Your task to perform on an android device: change the clock style Image 0: 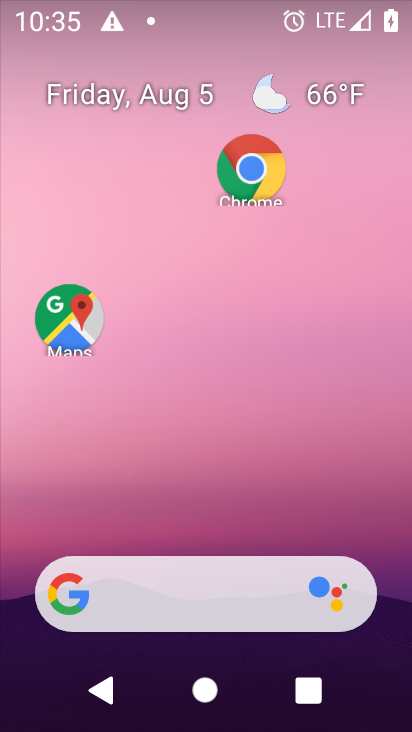
Step 0: drag from (175, 530) to (178, 212)
Your task to perform on an android device: change the clock style Image 1: 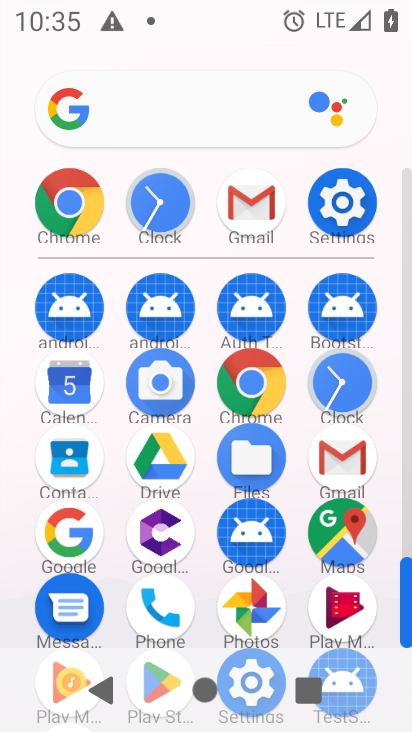
Step 1: click (155, 200)
Your task to perform on an android device: change the clock style Image 2: 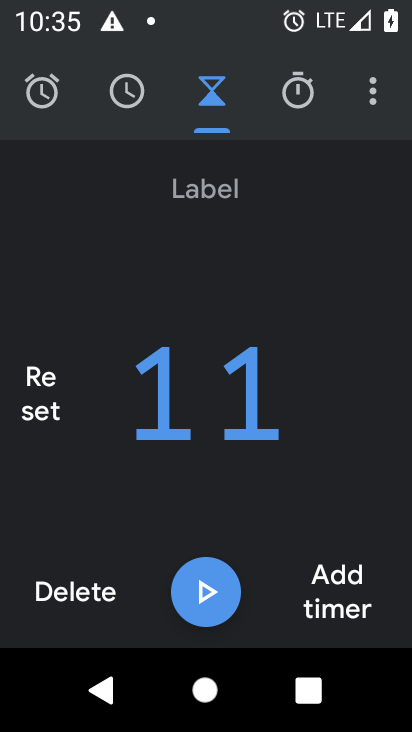
Step 2: click (389, 101)
Your task to perform on an android device: change the clock style Image 3: 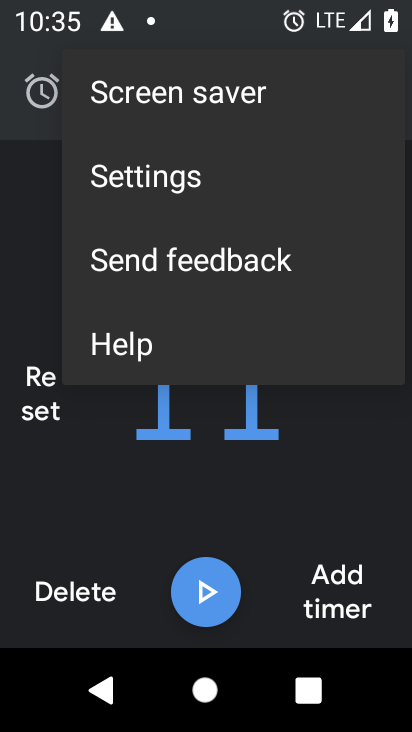
Step 3: drag from (140, 160) to (193, 160)
Your task to perform on an android device: change the clock style Image 4: 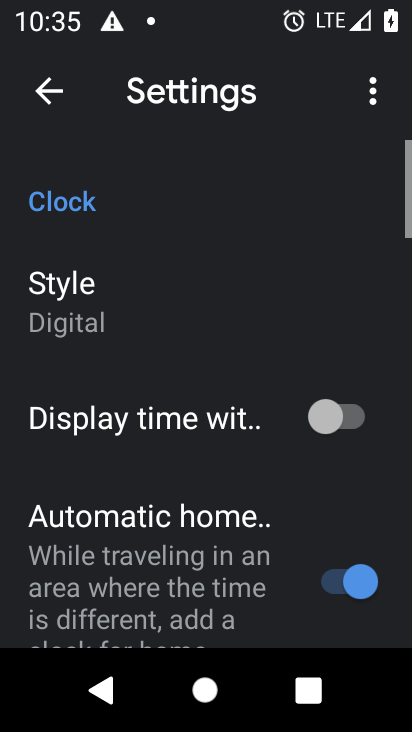
Step 4: click (124, 272)
Your task to perform on an android device: change the clock style Image 5: 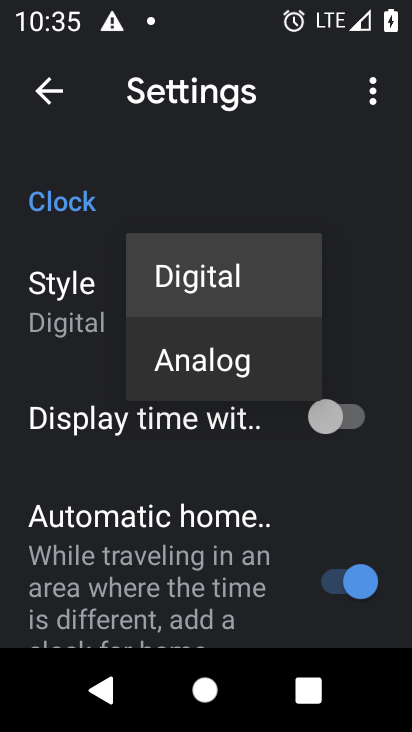
Step 5: click (188, 355)
Your task to perform on an android device: change the clock style Image 6: 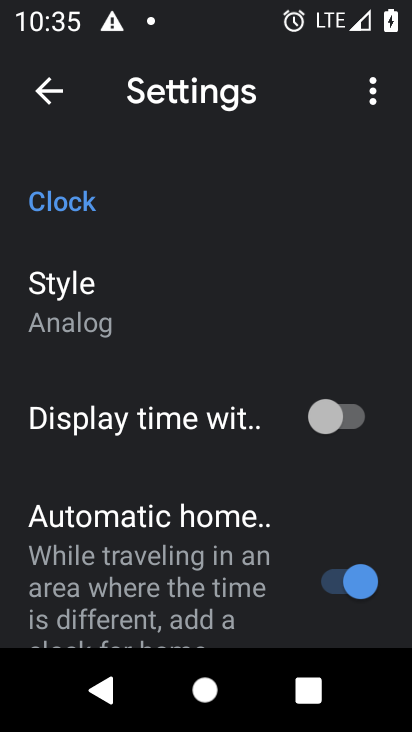
Step 6: task complete